Your task to perform on an android device: Open Android settings Image 0: 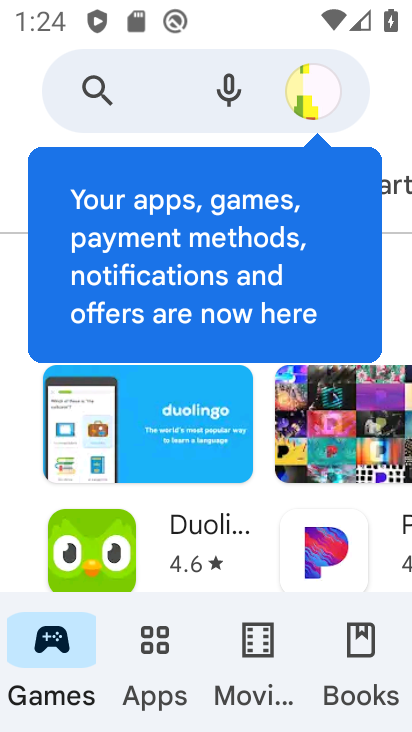
Step 0: press home button
Your task to perform on an android device: Open Android settings Image 1: 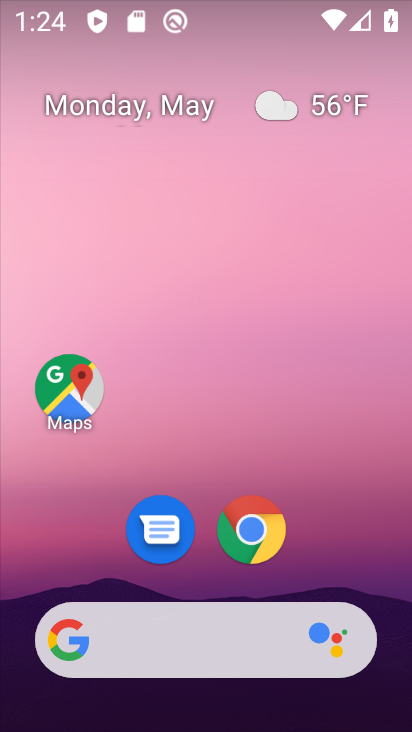
Step 1: drag from (262, 575) to (228, 7)
Your task to perform on an android device: Open Android settings Image 2: 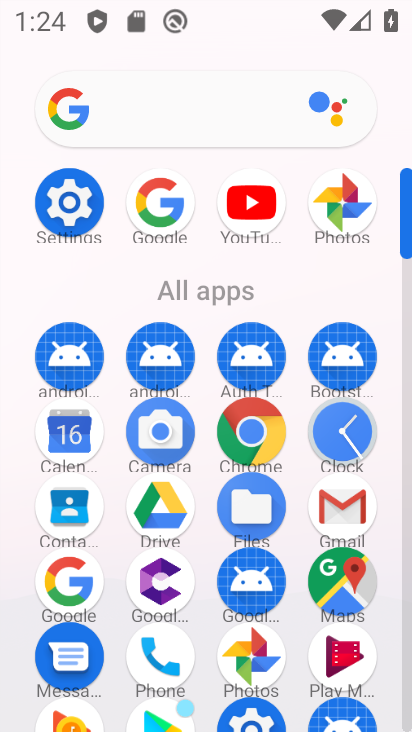
Step 2: click (79, 209)
Your task to perform on an android device: Open Android settings Image 3: 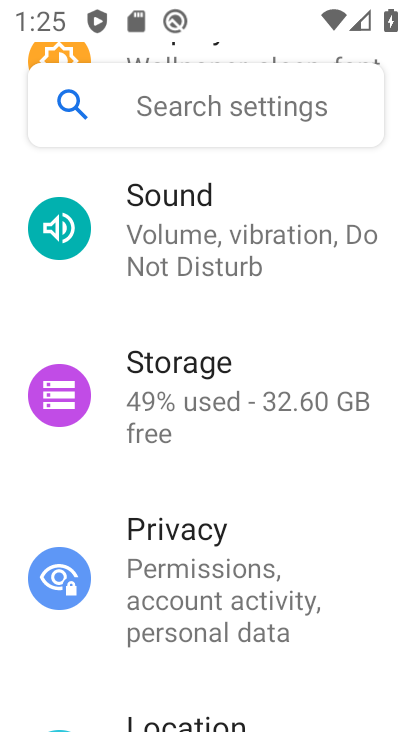
Step 3: drag from (179, 565) to (145, 349)
Your task to perform on an android device: Open Android settings Image 4: 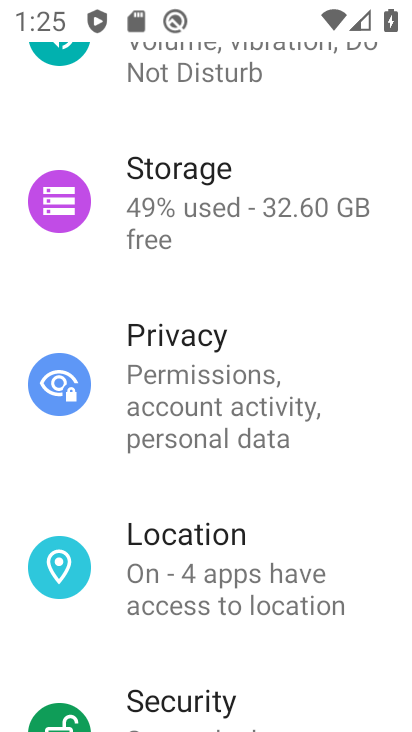
Step 4: drag from (137, 625) to (158, 270)
Your task to perform on an android device: Open Android settings Image 5: 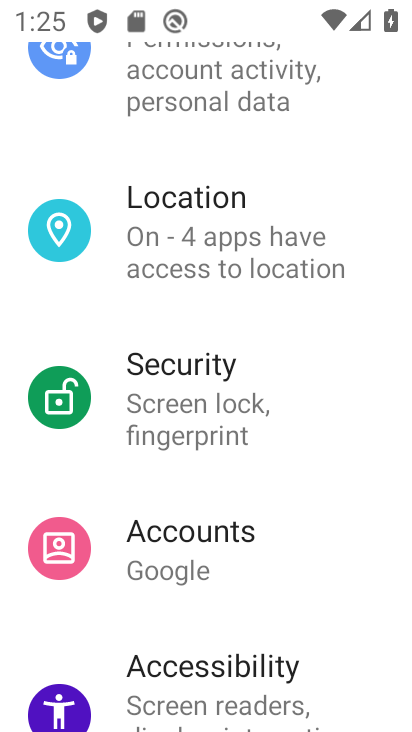
Step 5: drag from (168, 581) to (229, 263)
Your task to perform on an android device: Open Android settings Image 6: 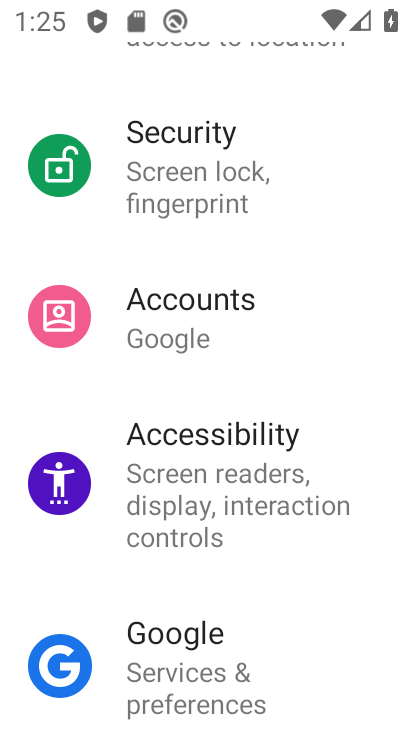
Step 6: drag from (279, 599) to (273, 308)
Your task to perform on an android device: Open Android settings Image 7: 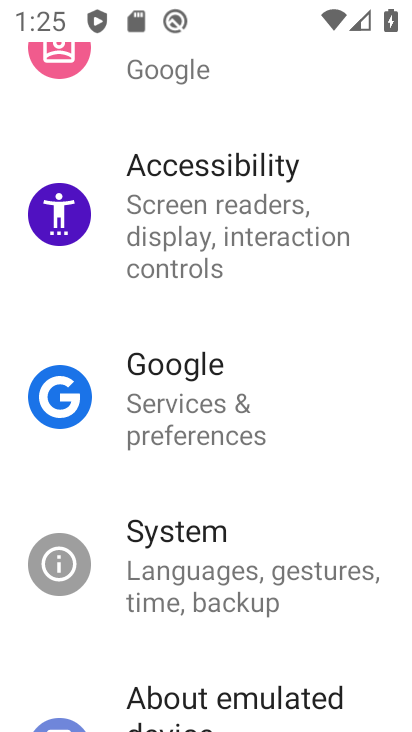
Step 7: click (219, 587)
Your task to perform on an android device: Open Android settings Image 8: 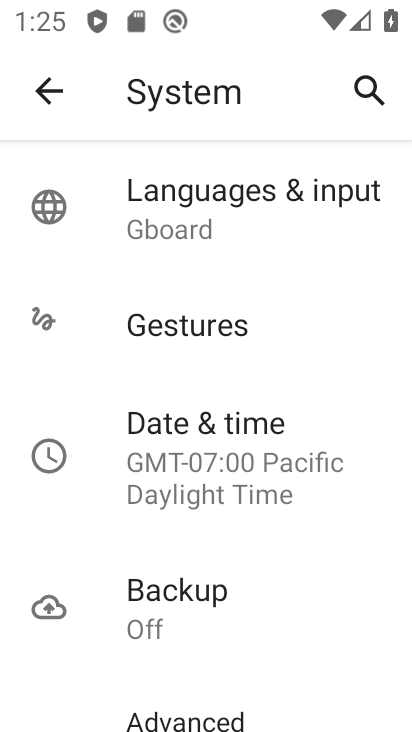
Step 8: task complete